Your task to perform on an android device: Turn on the flashlight Image 0: 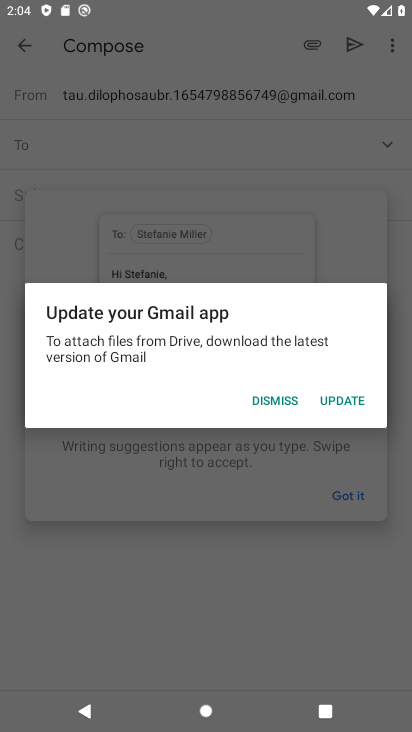
Step 0: press home button
Your task to perform on an android device: Turn on the flashlight Image 1: 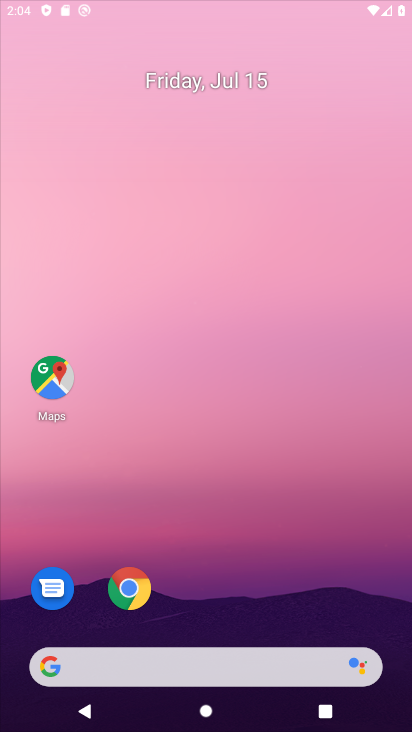
Step 1: press home button
Your task to perform on an android device: Turn on the flashlight Image 2: 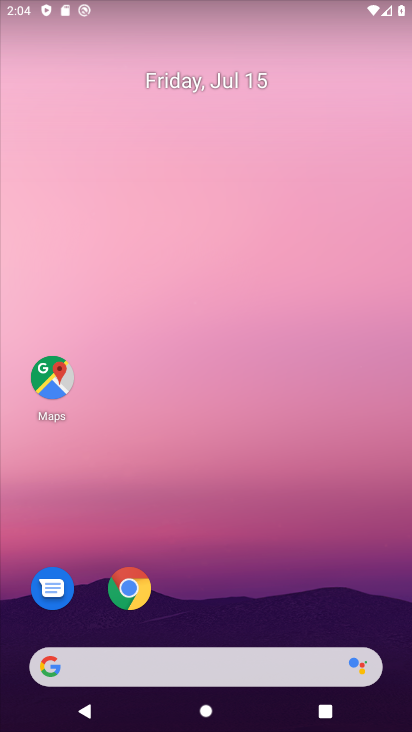
Step 2: drag from (339, 3) to (265, 532)
Your task to perform on an android device: Turn on the flashlight Image 3: 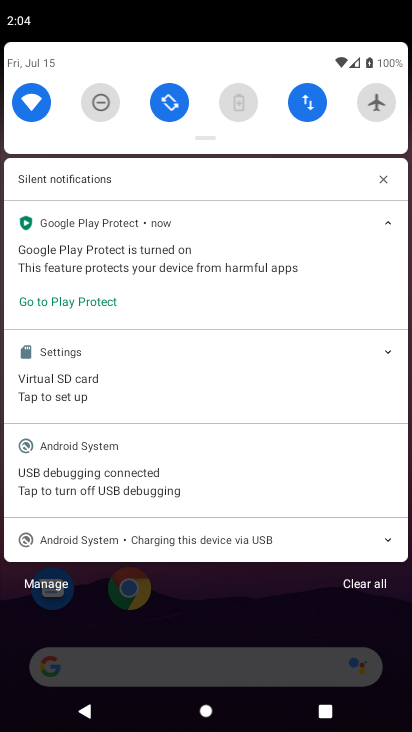
Step 3: drag from (238, 134) to (211, 676)
Your task to perform on an android device: Turn on the flashlight Image 4: 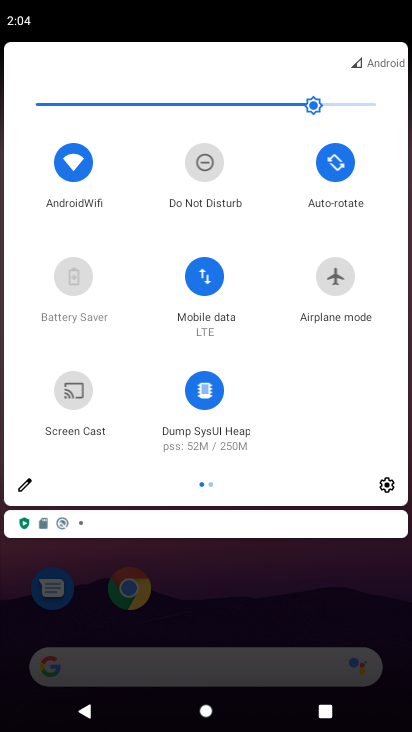
Step 4: click (19, 483)
Your task to perform on an android device: Turn on the flashlight Image 5: 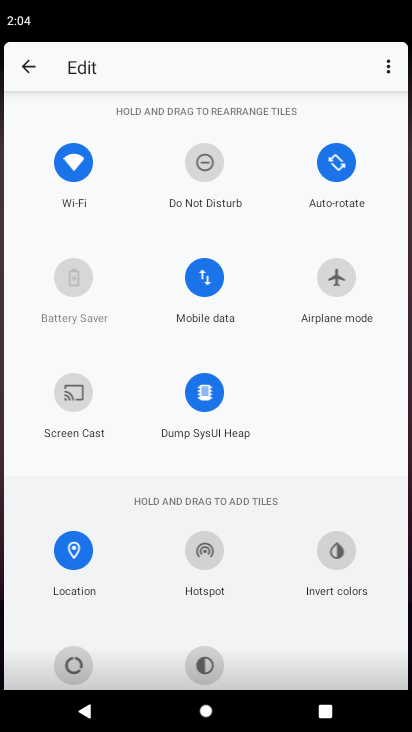
Step 5: task complete